Your task to perform on an android device: Check the weather Image 0: 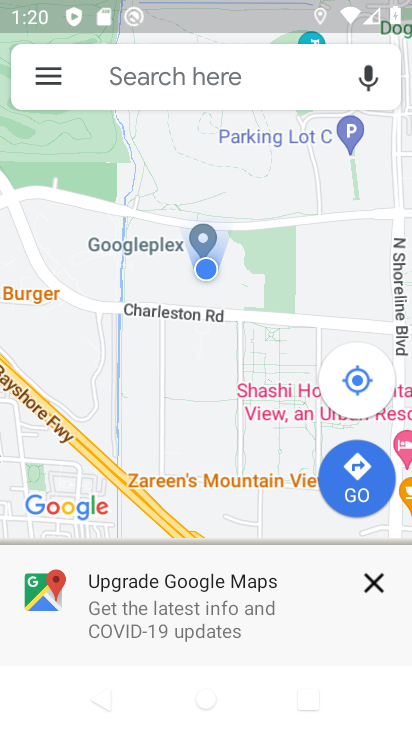
Step 0: press home button
Your task to perform on an android device: Check the weather Image 1: 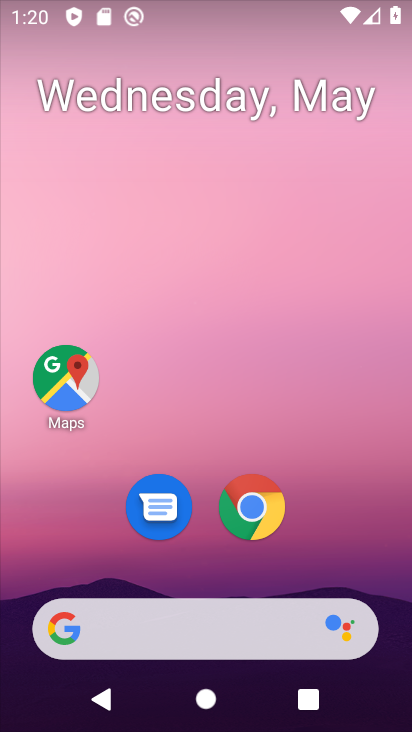
Step 1: click (261, 624)
Your task to perform on an android device: Check the weather Image 2: 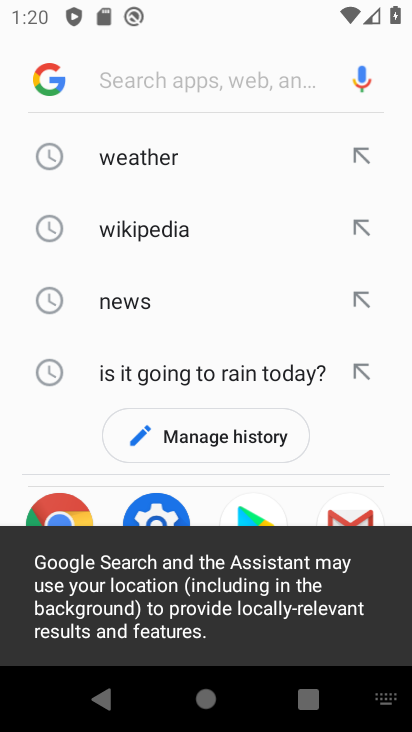
Step 2: click (225, 155)
Your task to perform on an android device: Check the weather Image 3: 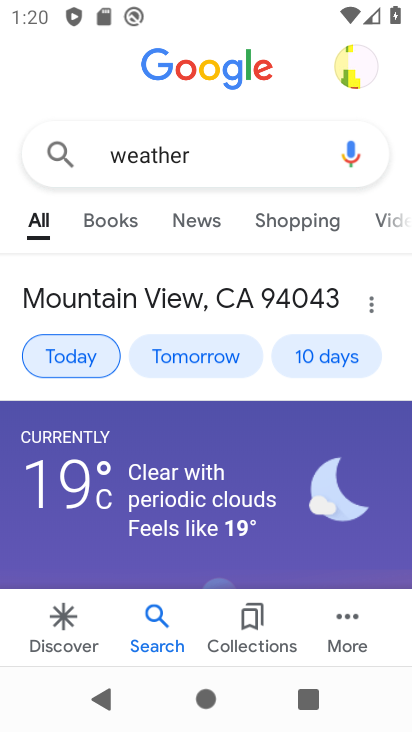
Step 3: task complete